Your task to perform on an android device: open sync settings in chrome Image 0: 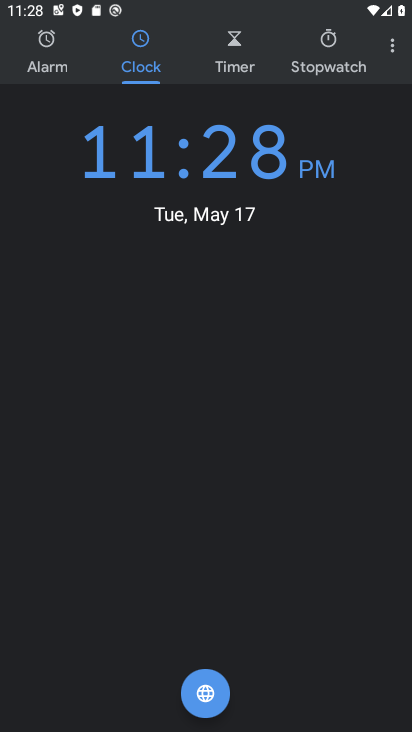
Step 0: press back button
Your task to perform on an android device: open sync settings in chrome Image 1: 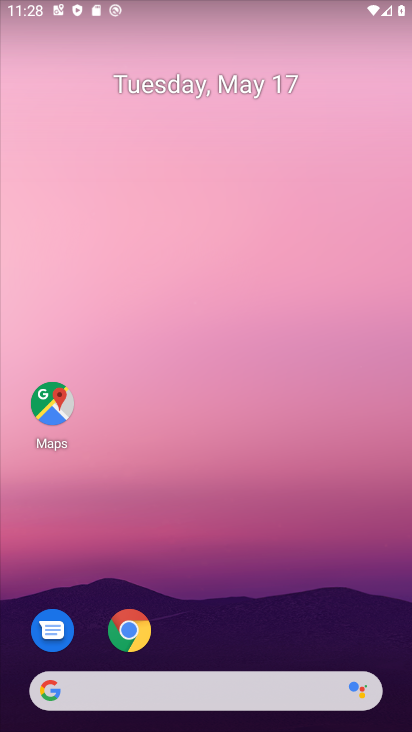
Step 1: click (123, 628)
Your task to perform on an android device: open sync settings in chrome Image 2: 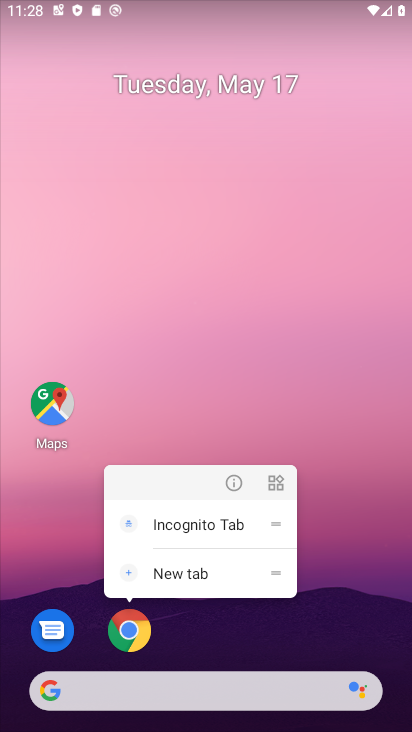
Step 2: click (129, 624)
Your task to perform on an android device: open sync settings in chrome Image 3: 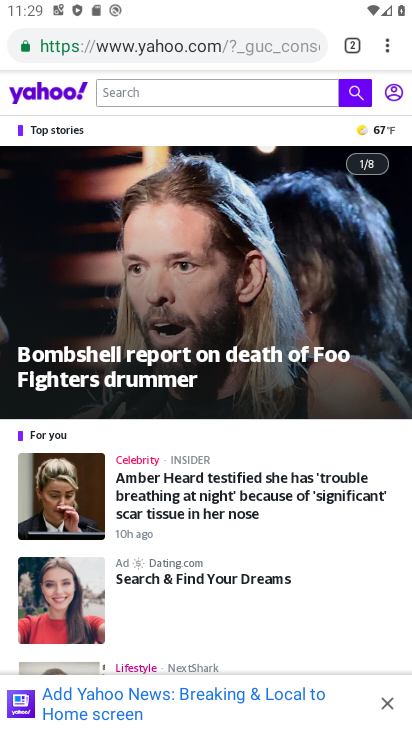
Step 3: task complete